Your task to perform on an android device: Open internet settings Image 0: 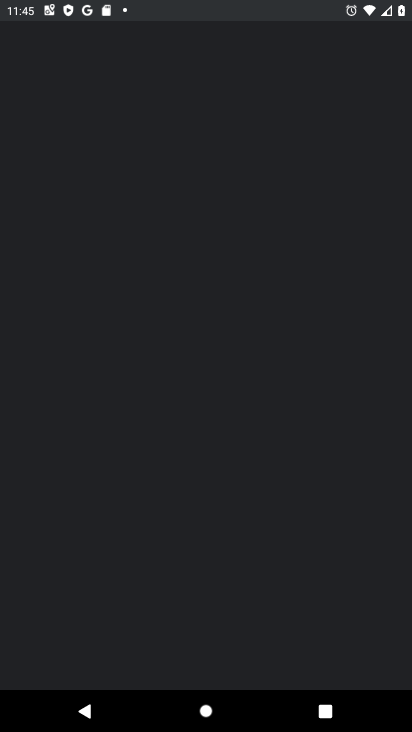
Step 0: press home button
Your task to perform on an android device: Open internet settings Image 1: 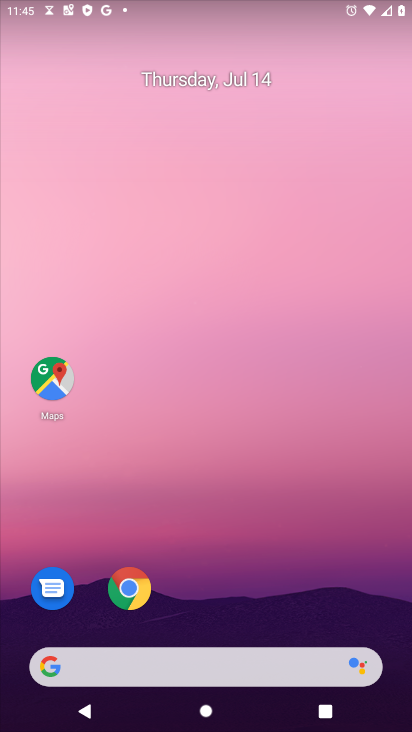
Step 1: drag from (160, 676) to (303, 11)
Your task to perform on an android device: Open internet settings Image 2: 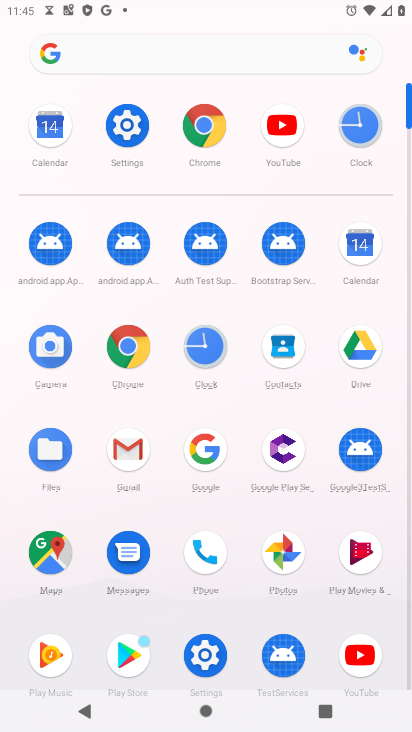
Step 2: click (126, 122)
Your task to perform on an android device: Open internet settings Image 3: 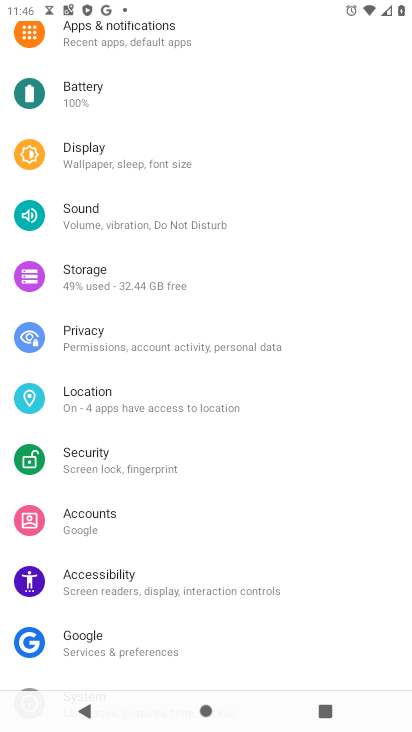
Step 3: drag from (272, 86) to (210, 555)
Your task to perform on an android device: Open internet settings Image 4: 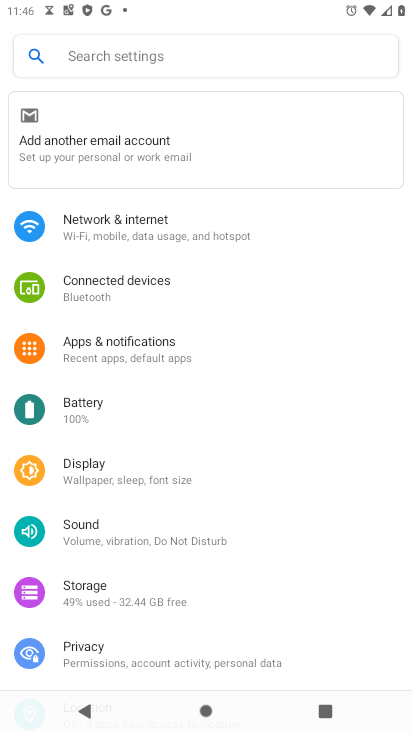
Step 4: click (139, 226)
Your task to perform on an android device: Open internet settings Image 5: 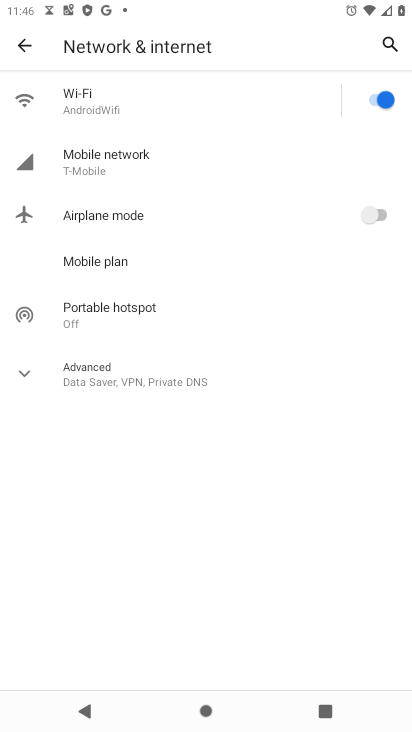
Step 5: task complete